Your task to perform on an android device: Add corsair k70 to the cart on ebay Image 0: 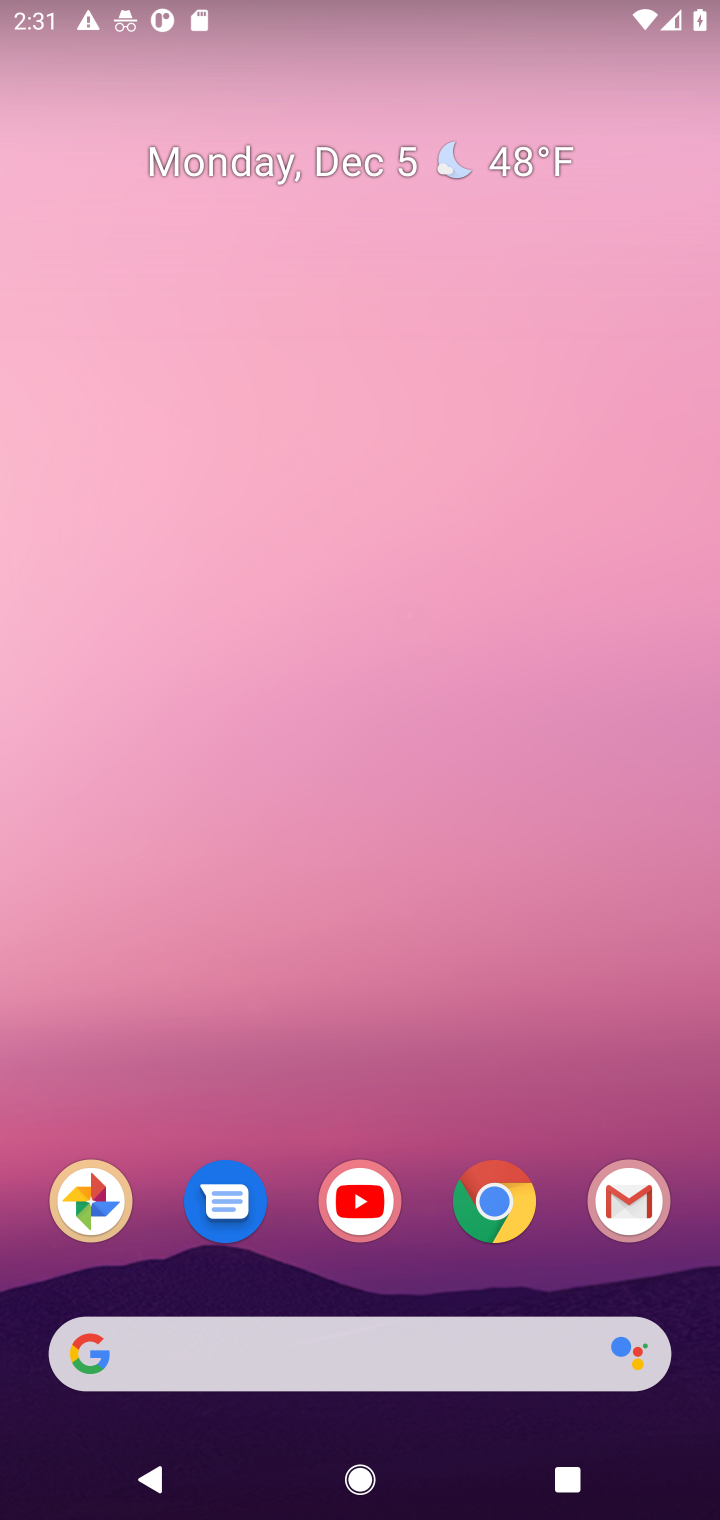
Step 0: click (497, 1211)
Your task to perform on an android device: Add corsair k70 to the cart on ebay Image 1: 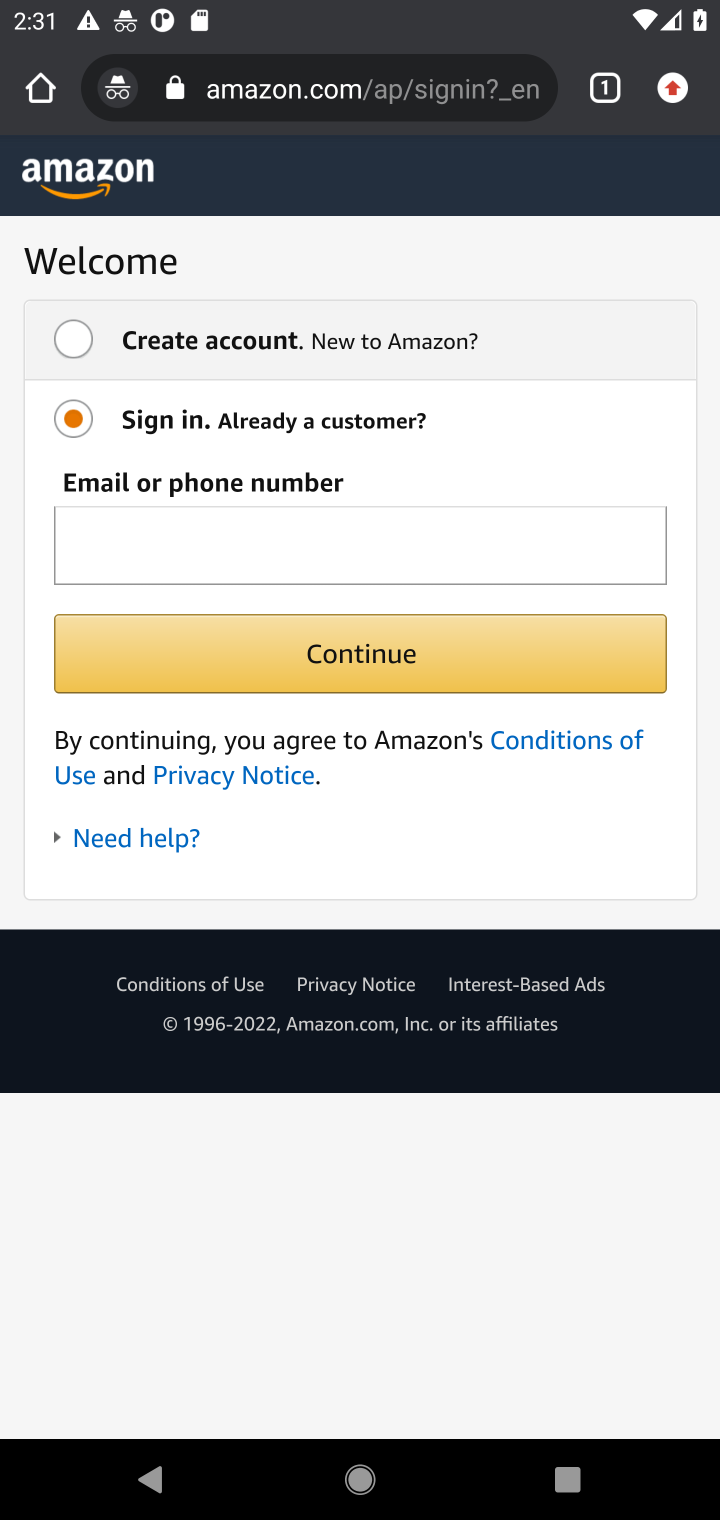
Step 1: click (503, 84)
Your task to perform on an android device: Add corsair k70 to the cart on ebay Image 2: 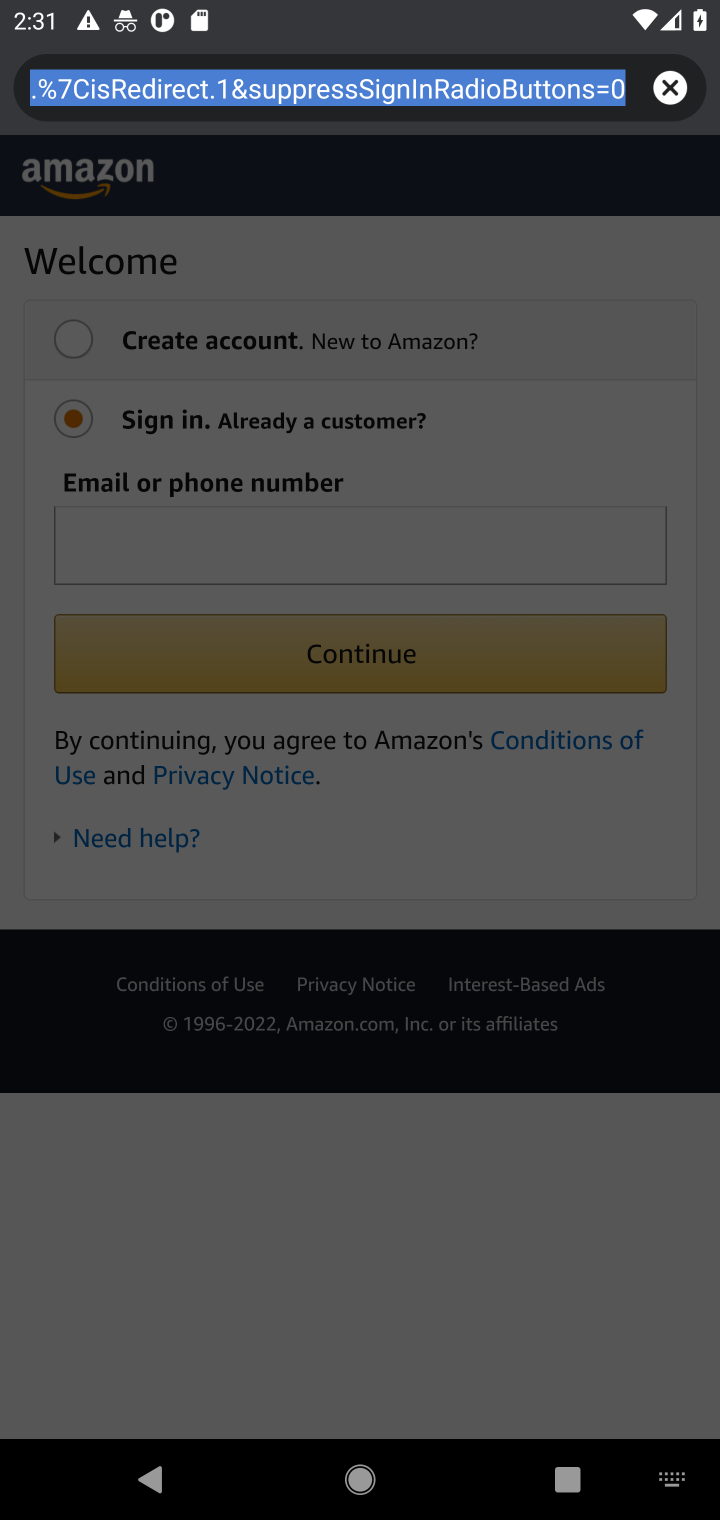
Step 2: click (665, 85)
Your task to perform on an android device: Add corsair k70 to the cart on ebay Image 3: 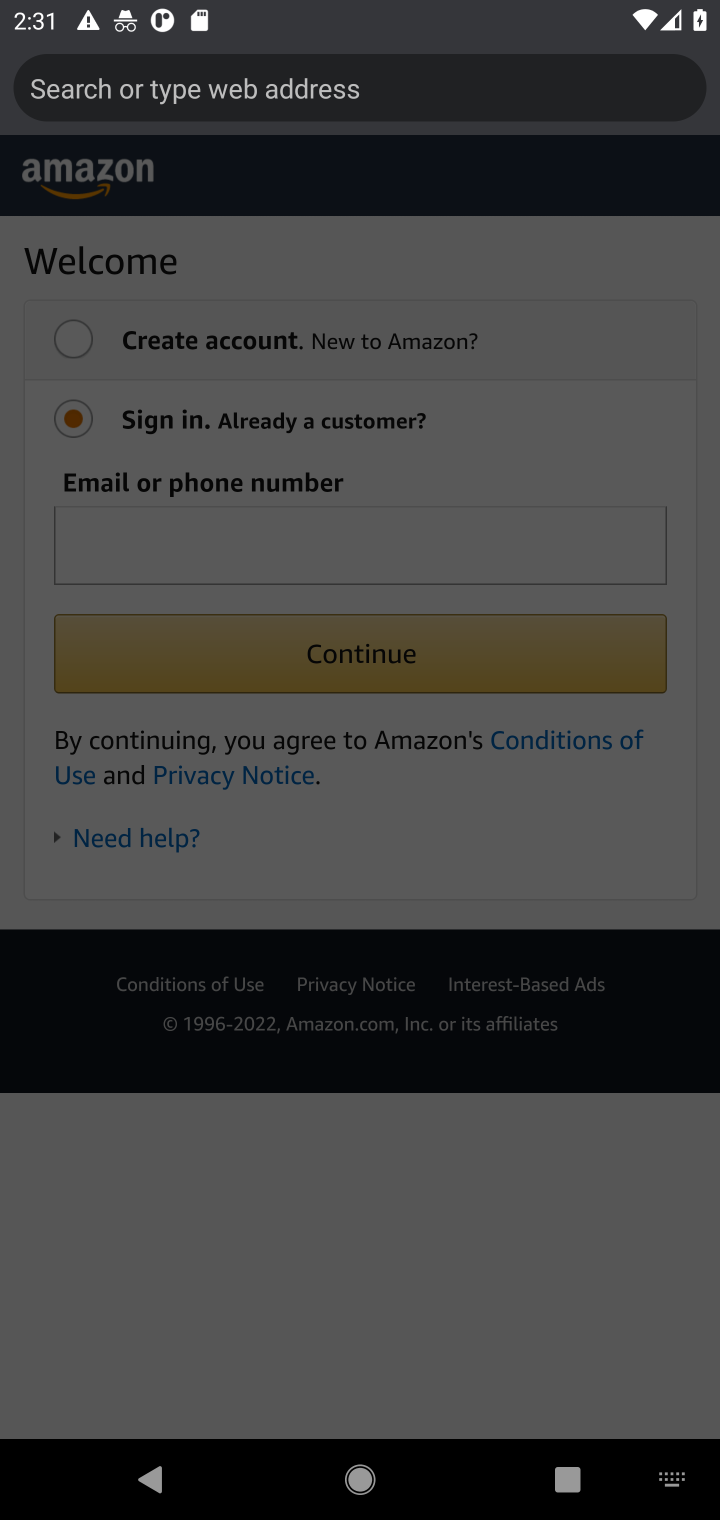
Step 3: type "ebay"
Your task to perform on an android device: Add corsair k70 to the cart on ebay Image 4: 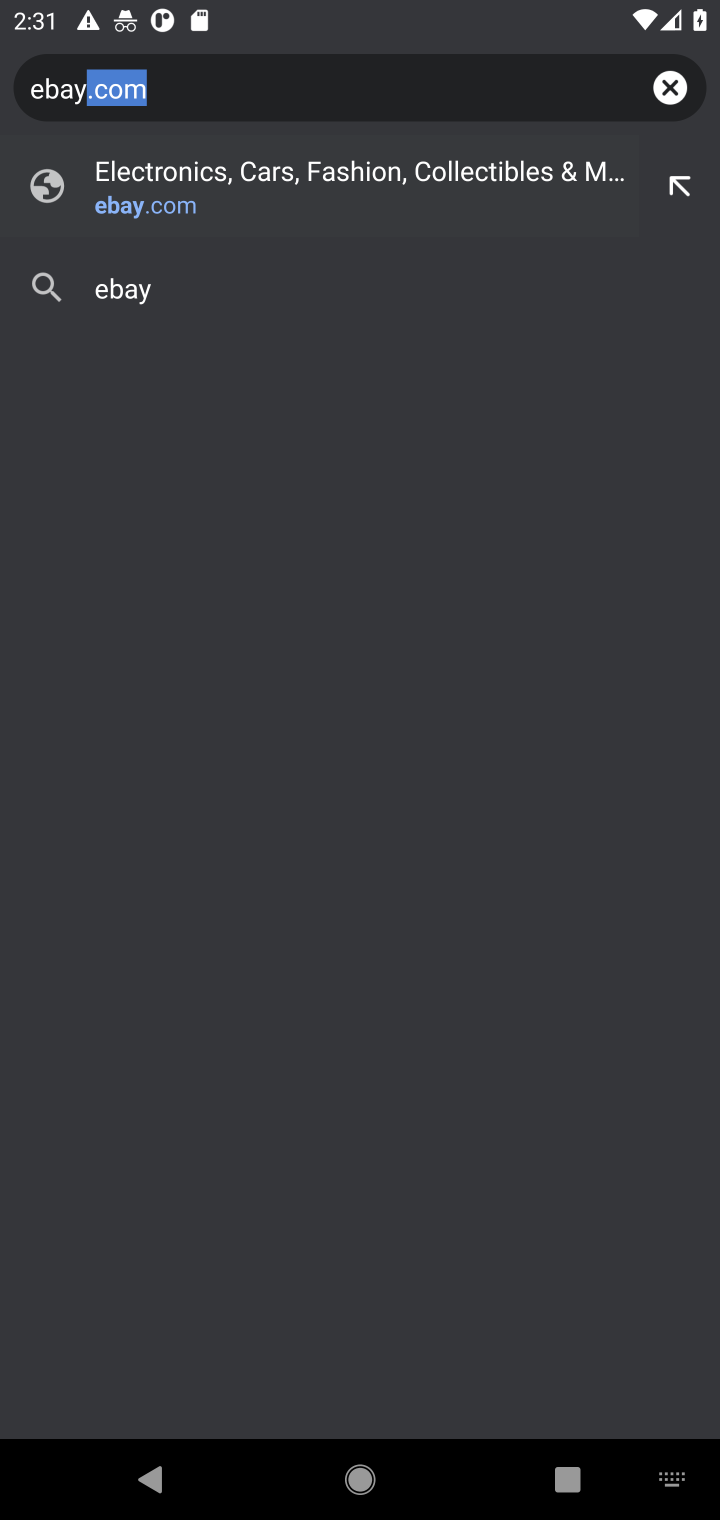
Step 4: click (219, 201)
Your task to perform on an android device: Add corsair k70 to the cart on ebay Image 5: 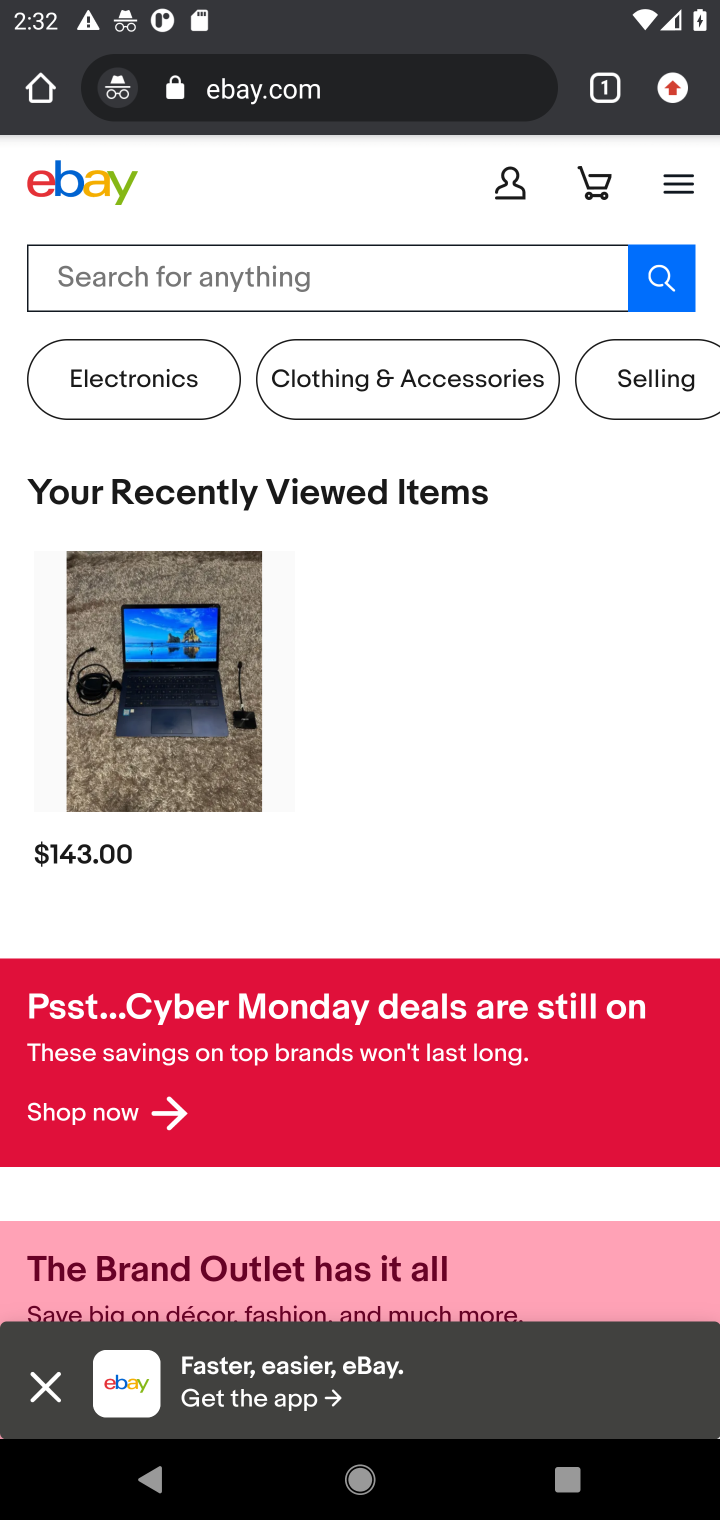
Step 5: click (246, 260)
Your task to perform on an android device: Add corsair k70 to the cart on ebay Image 6: 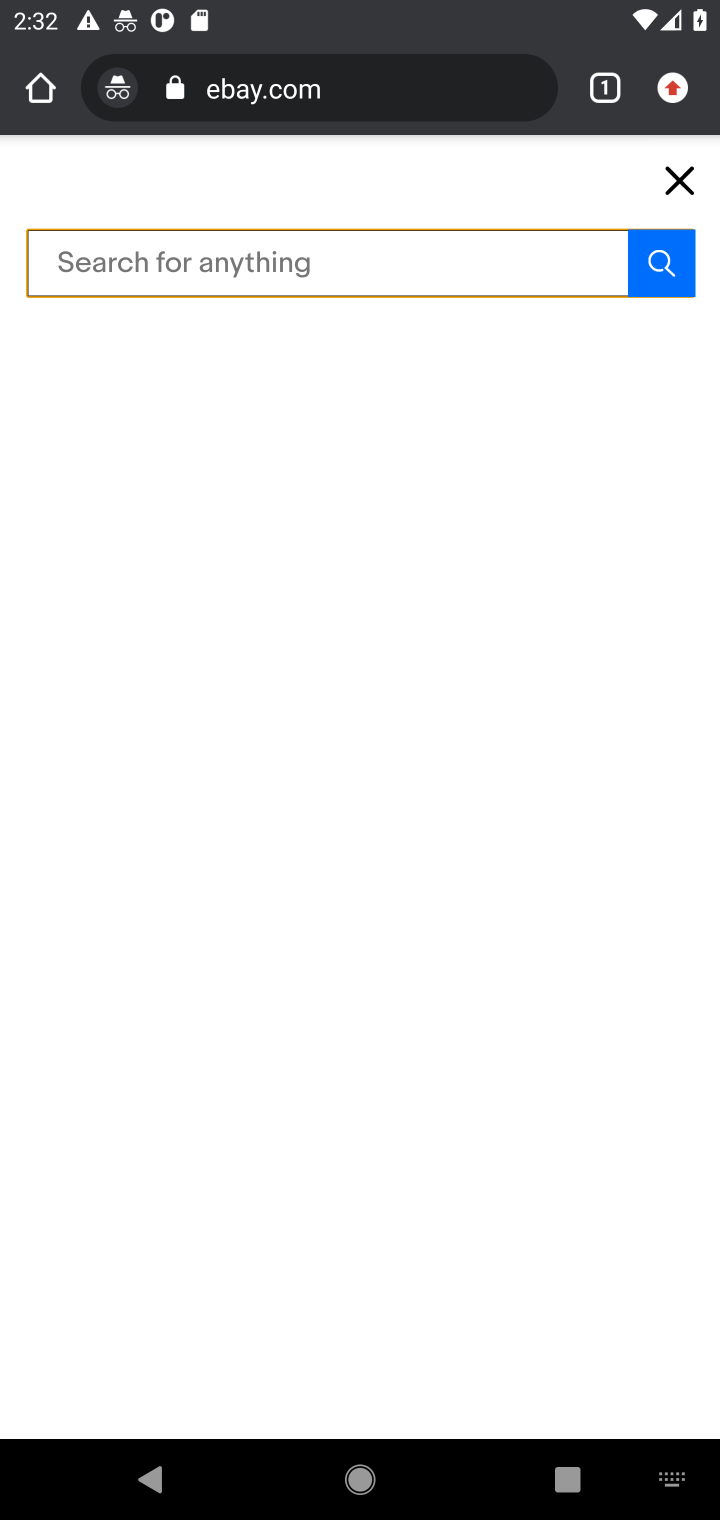
Step 6: type " corsair k70"
Your task to perform on an android device: Add corsair k70 to the cart on ebay Image 7: 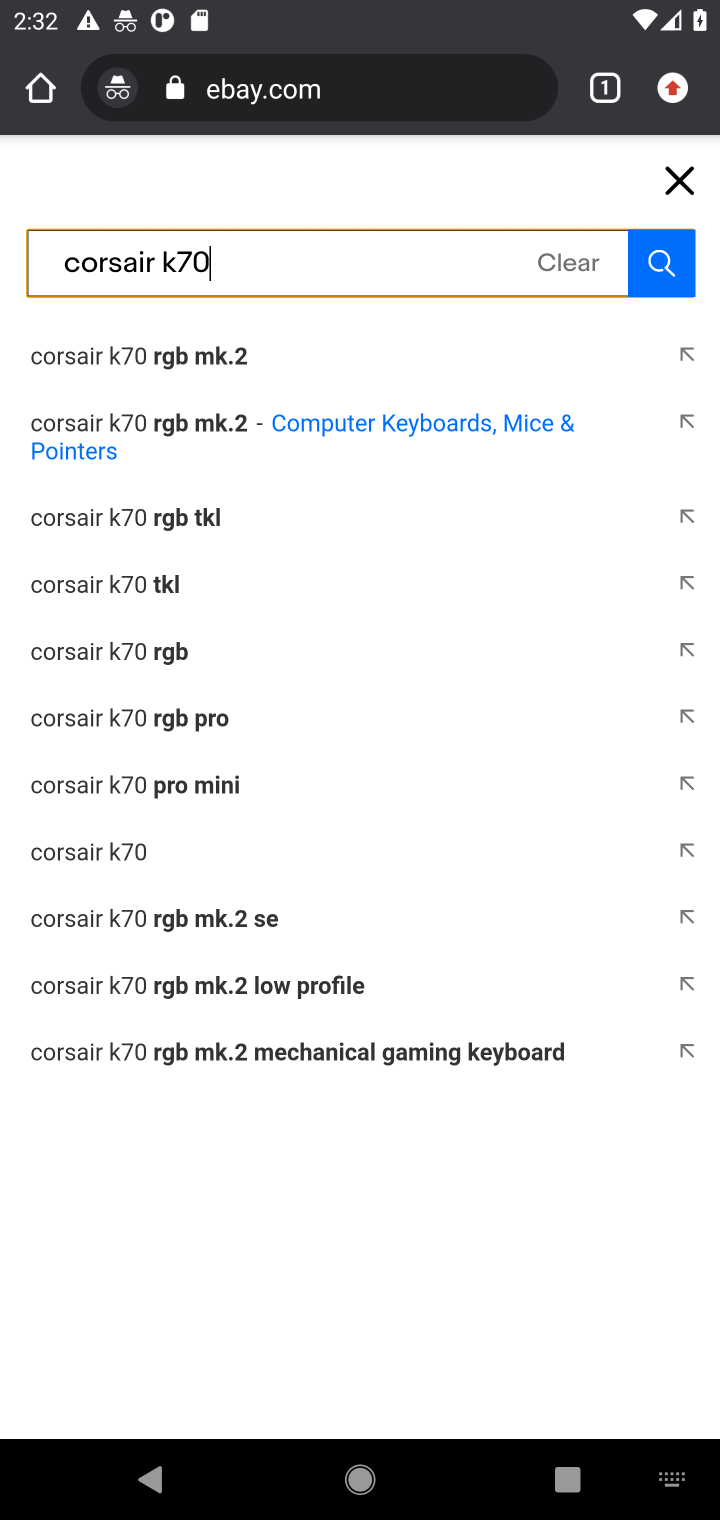
Step 7: click (665, 285)
Your task to perform on an android device: Add corsair k70 to the cart on ebay Image 8: 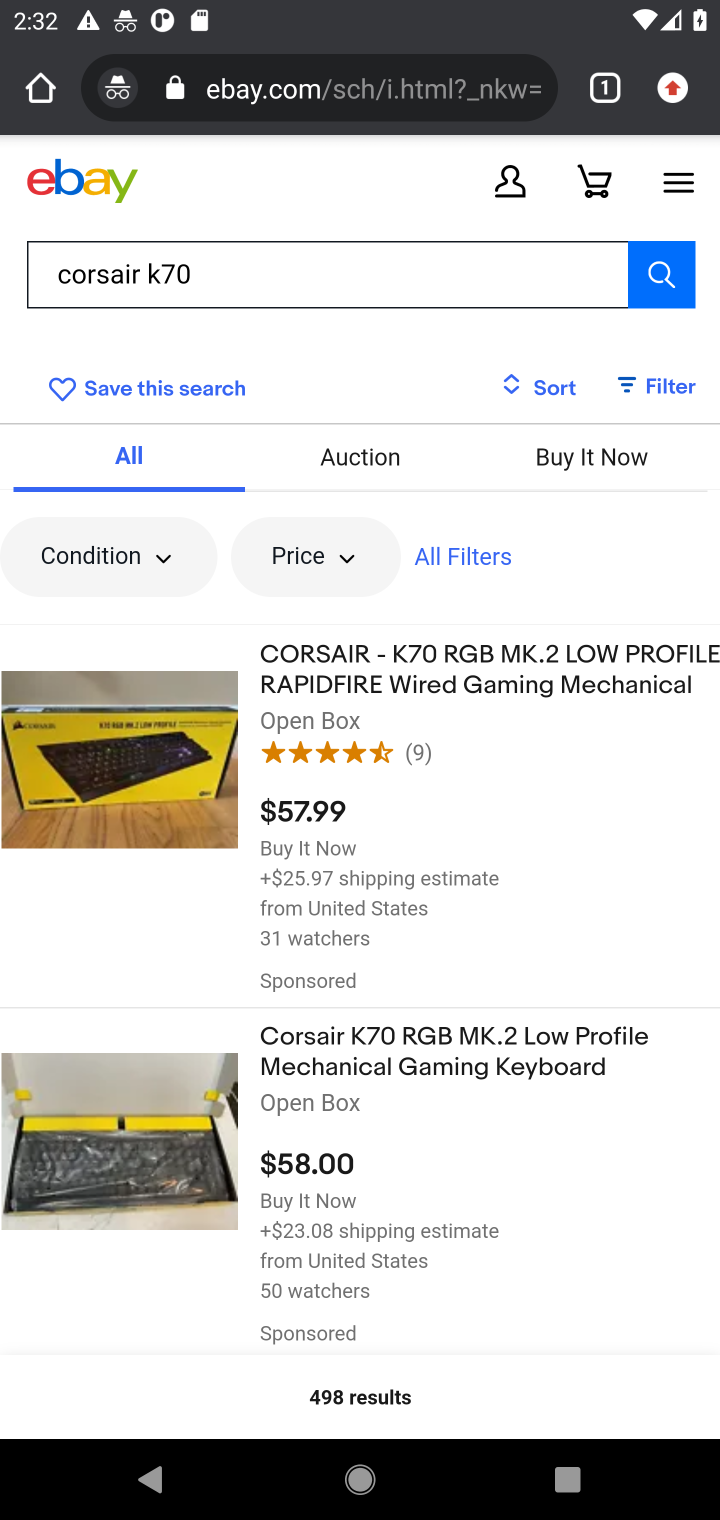
Step 8: click (415, 719)
Your task to perform on an android device: Add corsair k70 to the cart on ebay Image 9: 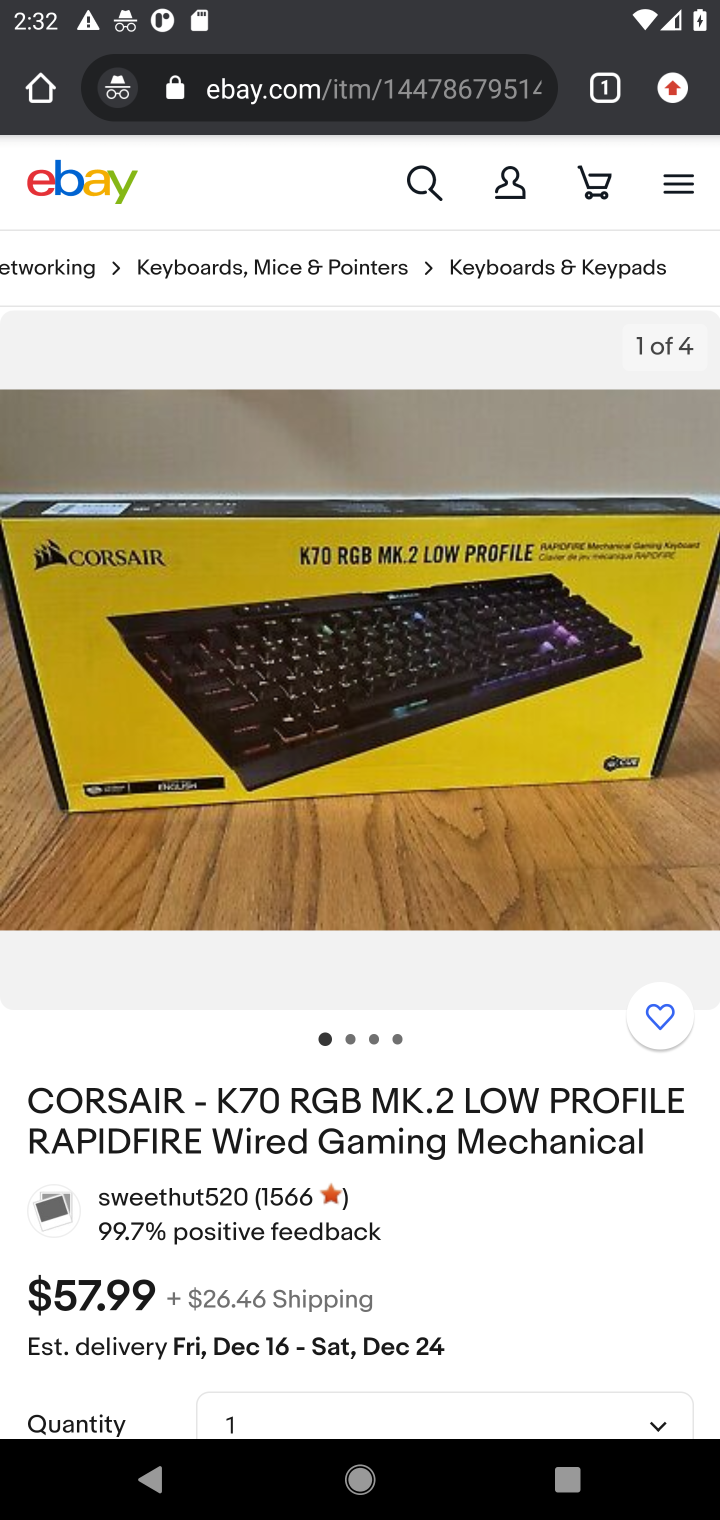
Step 9: drag from (506, 1409) to (623, 269)
Your task to perform on an android device: Add corsair k70 to the cart on ebay Image 10: 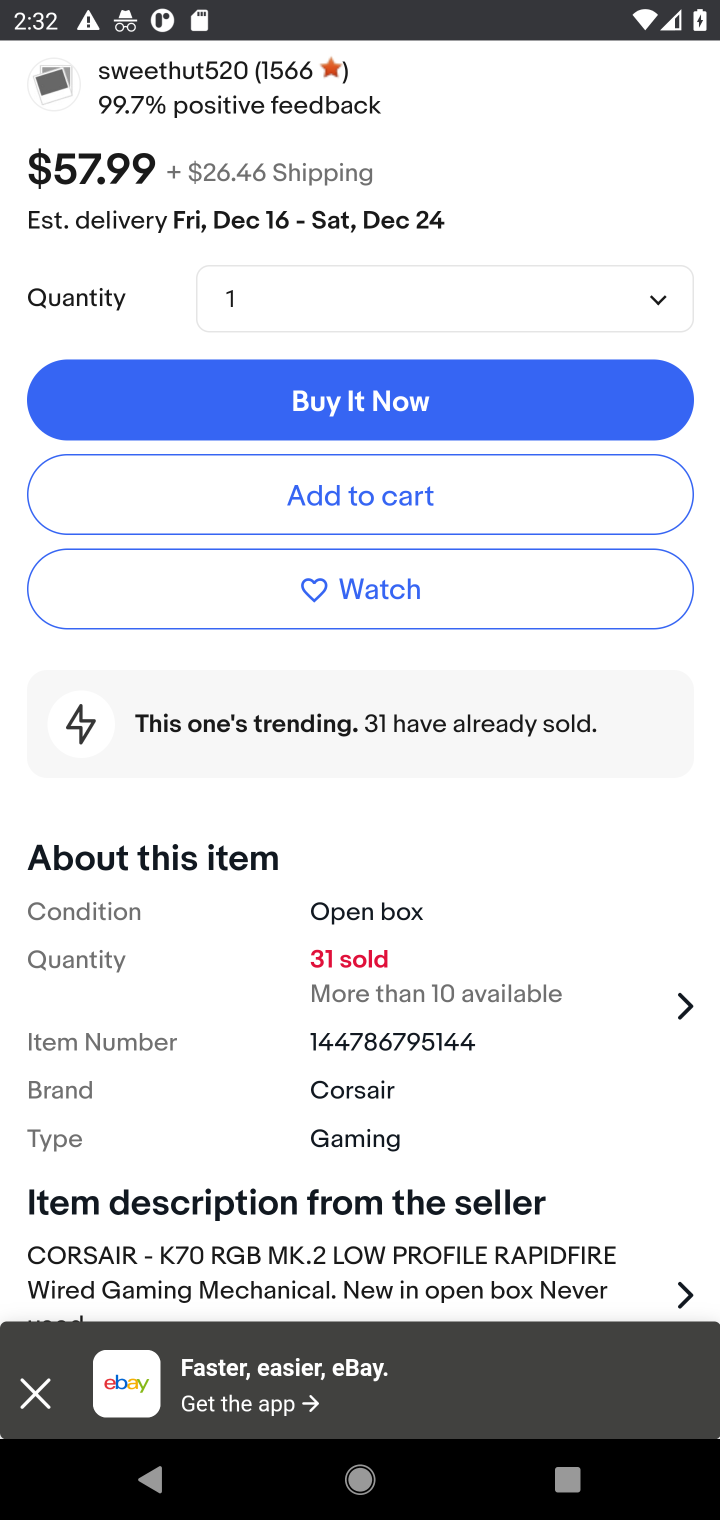
Step 10: click (350, 588)
Your task to perform on an android device: Add corsair k70 to the cart on ebay Image 11: 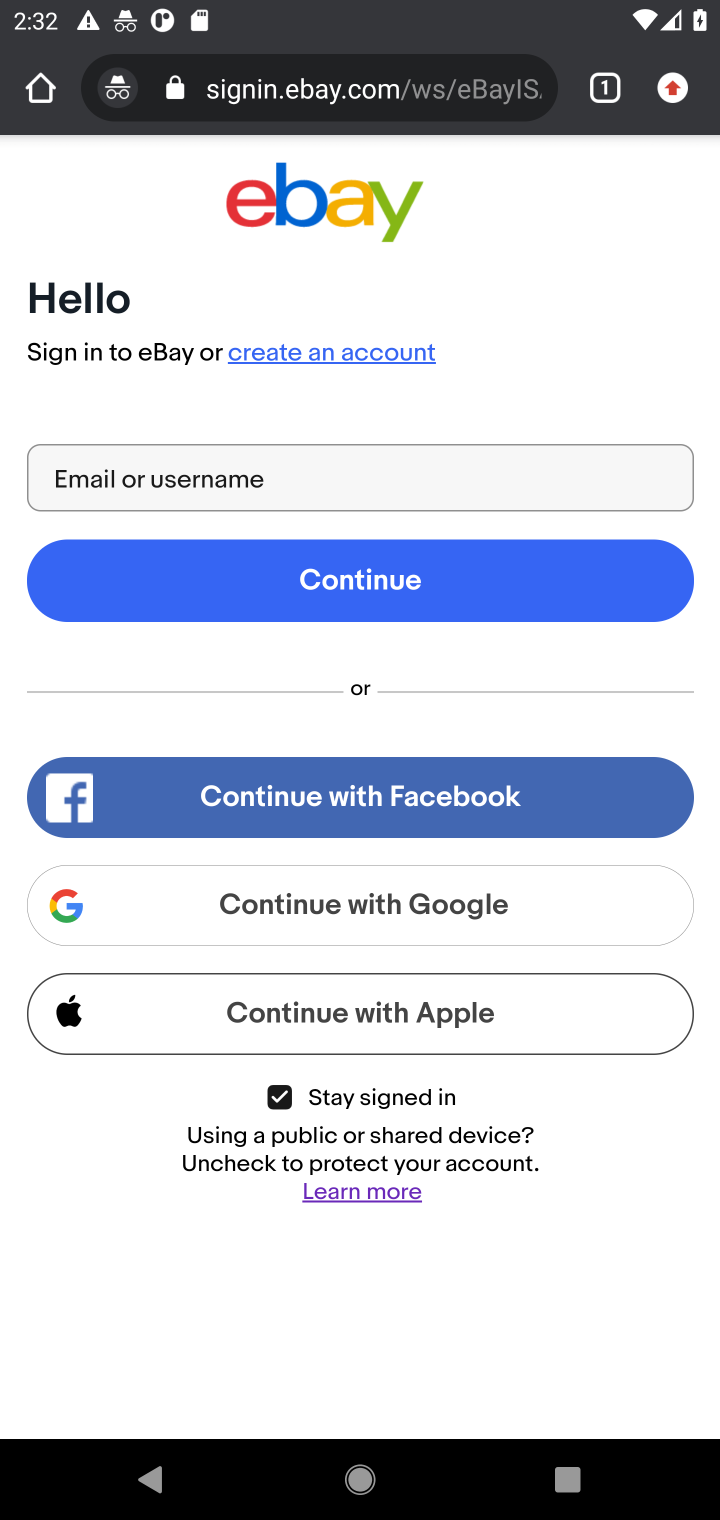
Step 11: press back button
Your task to perform on an android device: Add corsair k70 to the cart on ebay Image 12: 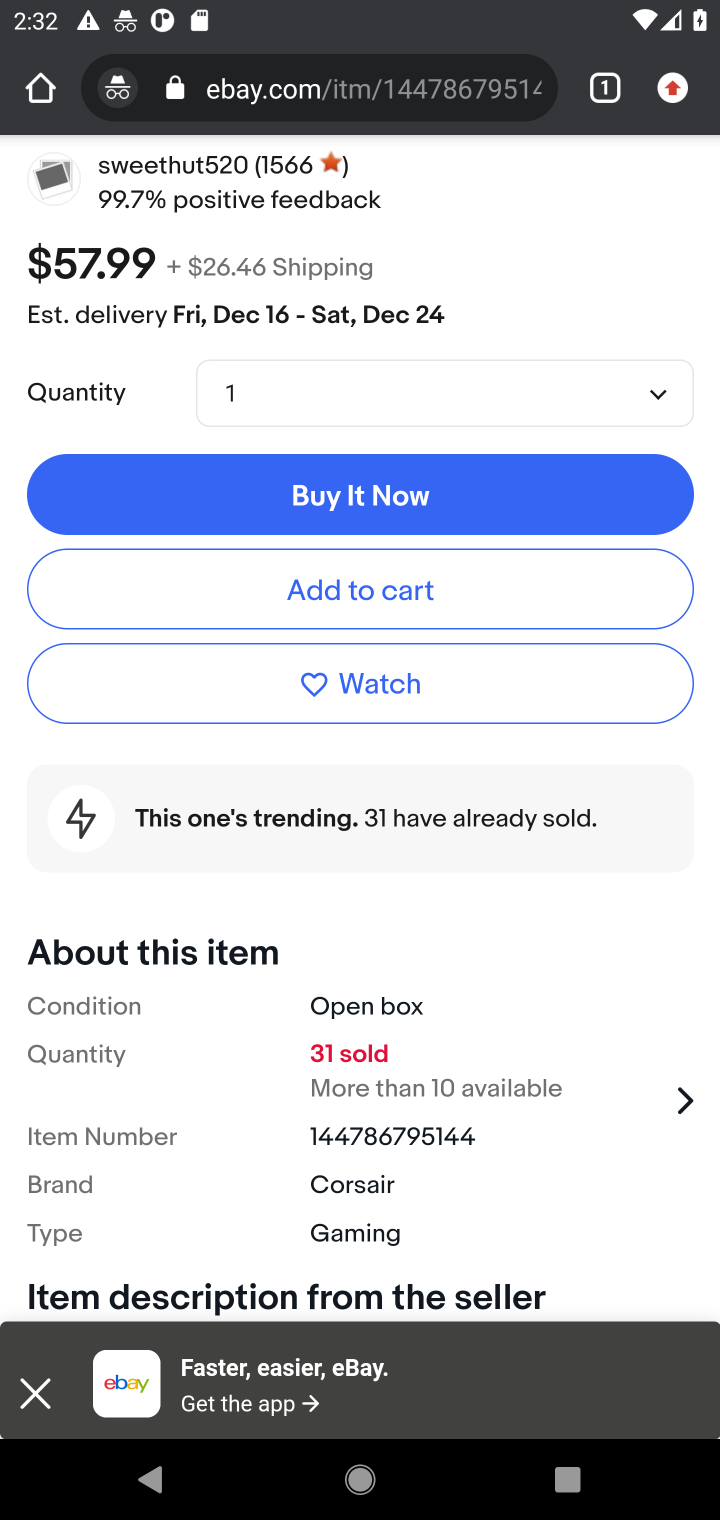
Step 12: click (398, 610)
Your task to perform on an android device: Add corsair k70 to the cart on ebay Image 13: 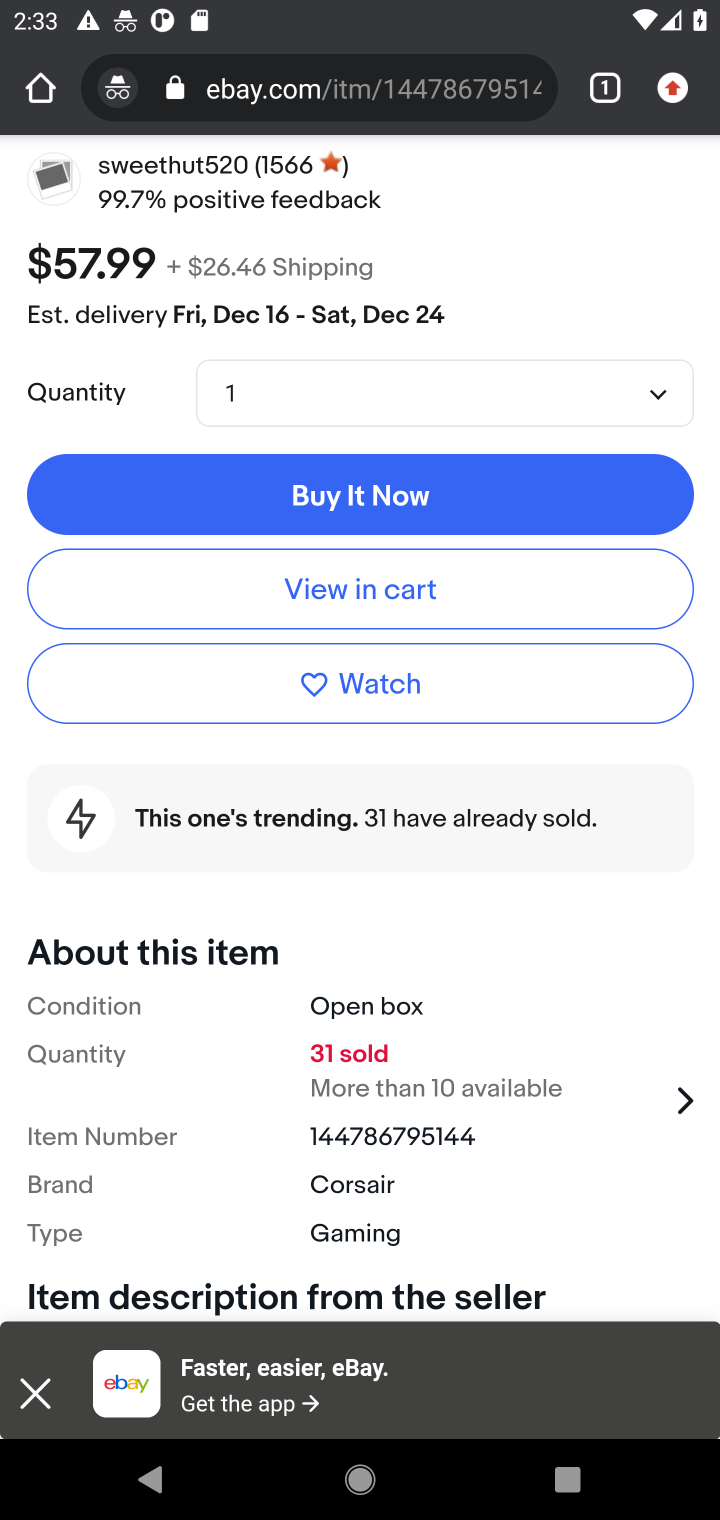
Step 13: task complete